Your task to perform on an android device: see sites visited before in the chrome app Image 0: 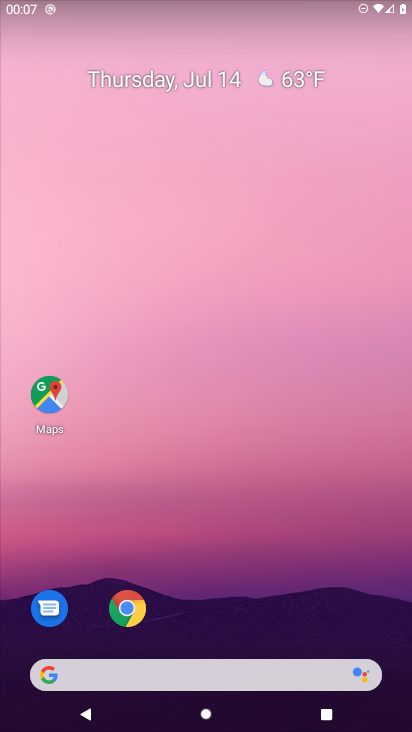
Step 0: press home button
Your task to perform on an android device: see sites visited before in the chrome app Image 1: 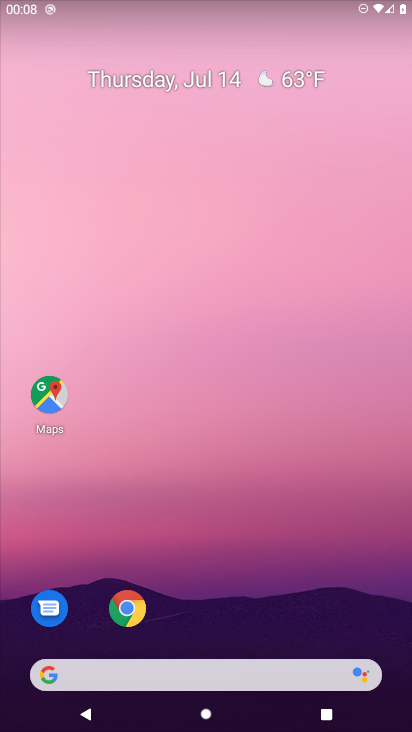
Step 1: drag from (225, 628) to (225, 88)
Your task to perform on an android device: see sites visited before in the chrome app Image 2: 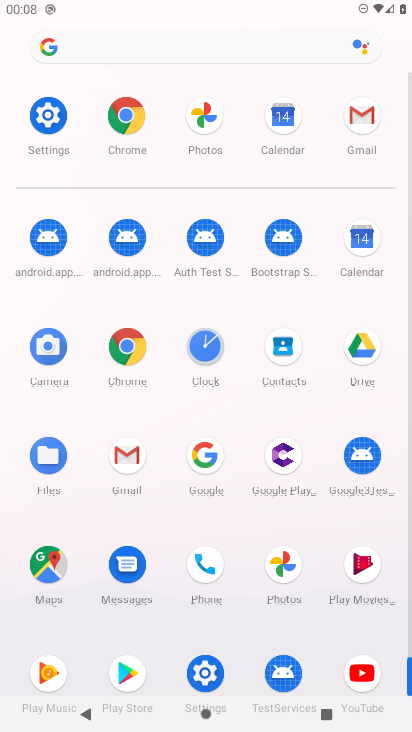
Step 2: click (130, 124)
Your task to perform on an android device: see sites visited before in the chrome app Image 3: 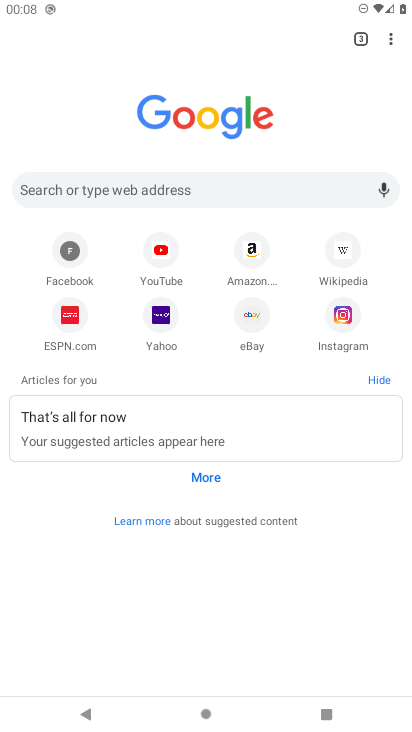
Step 3: task complete